Your task to perform on an android device: turn on notifications settings in the gmail app Image 0: 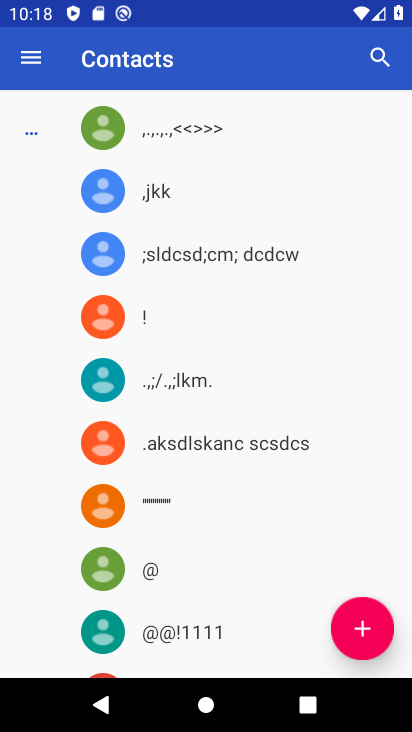
Step 0: press home button
Your task to perform on an android device: turn on notifications settings in the gmail app Image 1: 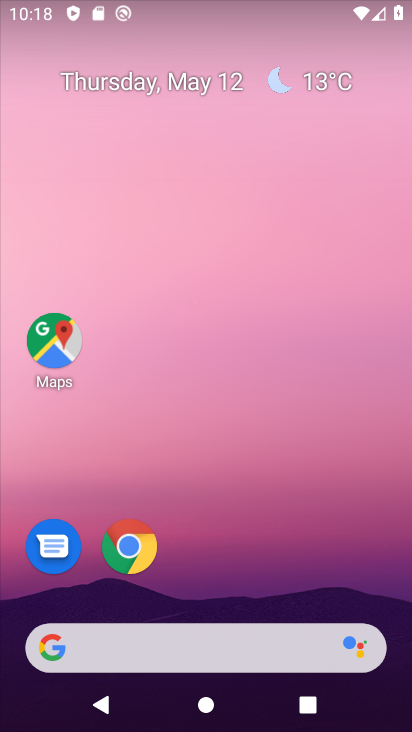
Step 1: drag from (285, 668) to (210, 233)
Your task to perform on an android device: turn on notifications settings in the gmail app Image 2: 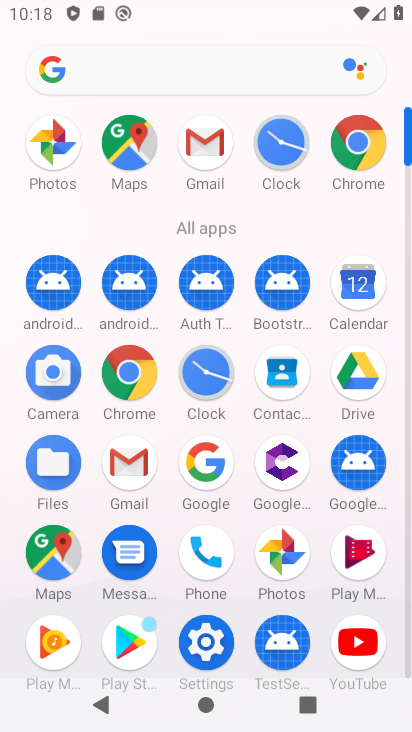
Step 2: click (204, 159)
Your task to perform on an android device: turn on notifications settings in the gmail app Image 3: 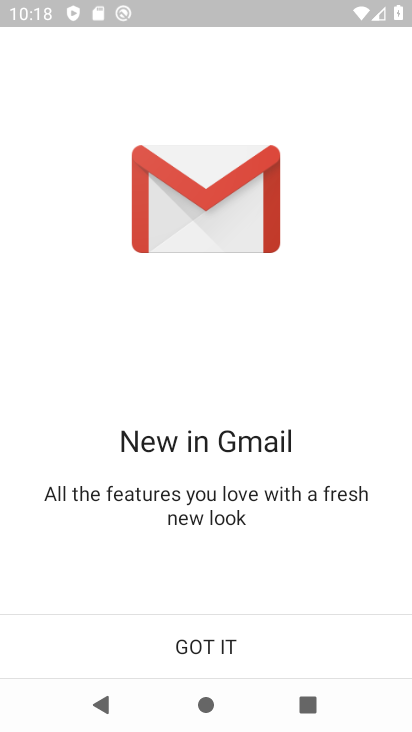
Step 3: click (154, 651)
Your task to perform on an android device: turn on notifications settings in the gmail app Image 4: 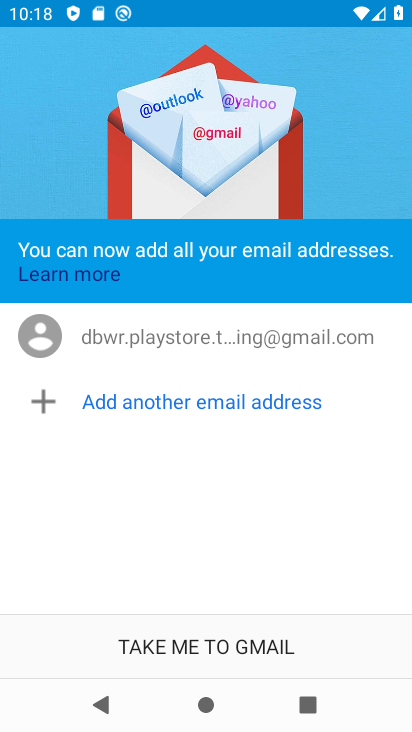
Step 4: click (154, 652)
Your task to perform on an android device: turn on notifications settings in the gmail app Image 5: 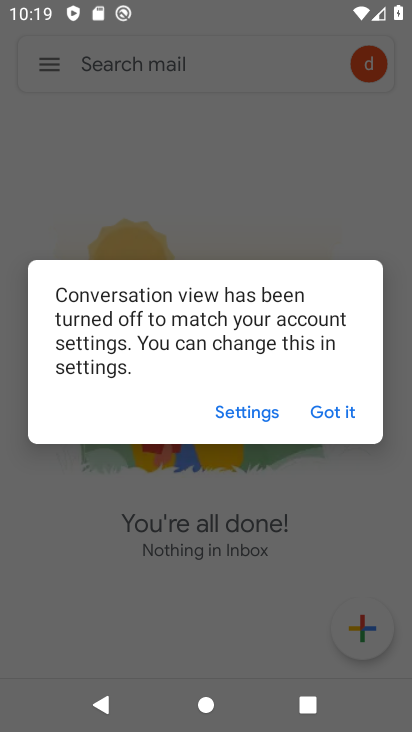
Step 5: click (328, 408)
Your task to perform on an android device: turn on notifications settings in the gmail app Image 6: 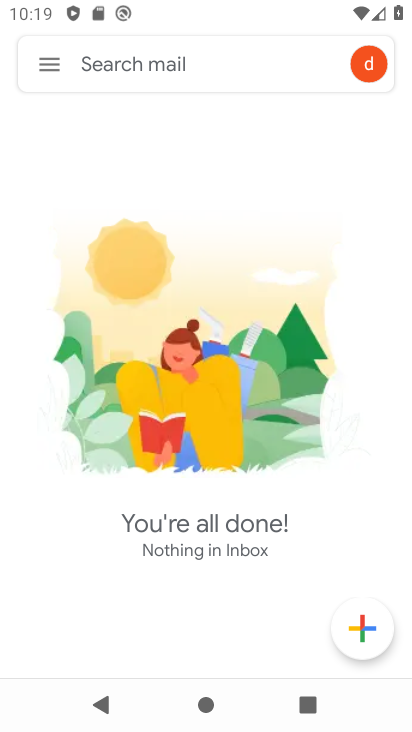
Step 6: click (34, 78)
Your task to perform on an android device: turn on notifications settings in the gmail app Image 7: 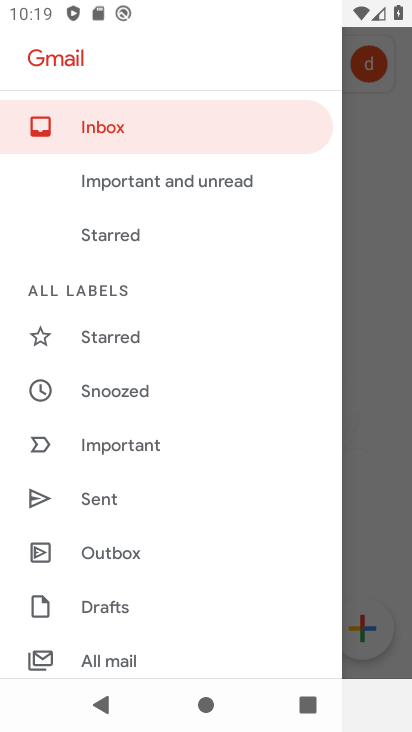
Step 7: drag from (62, 626) to (163, 463)
Your task to perform on an android device: turn on notifications settings in the gmail app Image 8: 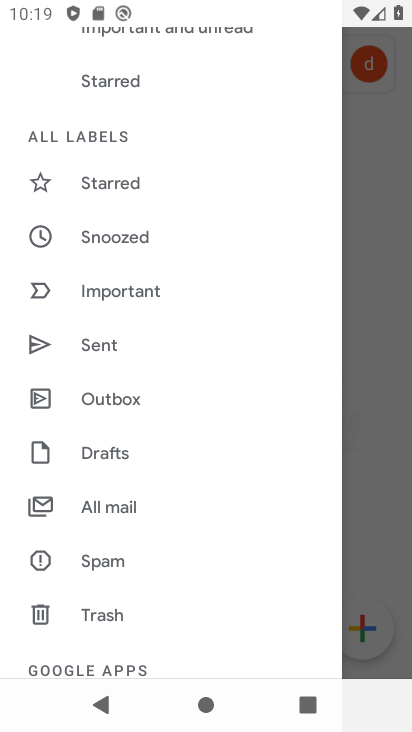
Step 8: drag from (130, 591) to (219, 453)
Your task to perform on an android device: turn on notifications settings in the gmail app Image 9: 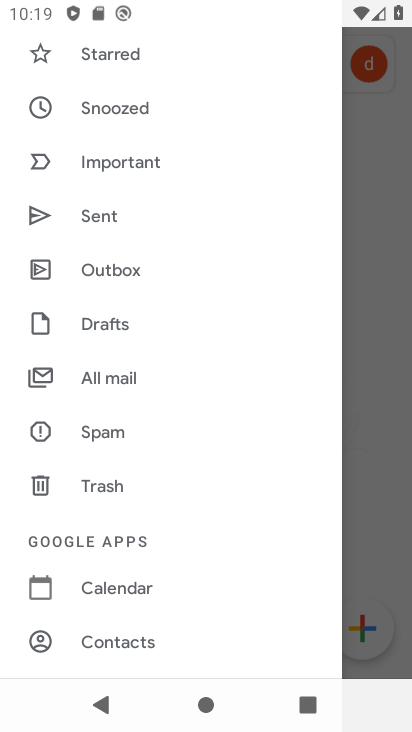
Step 9: drag from (140, 573) to (261, 377)
Your task to perform on an android device: turn on notifications settings in the gmail app Image 10: 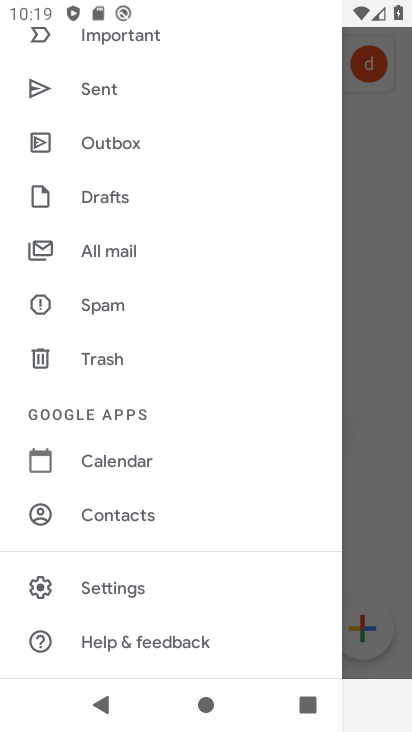
Step 10: click (143, 589)
Your task to perform on an android device: turn on notifications settings in the gmail app Image 11: 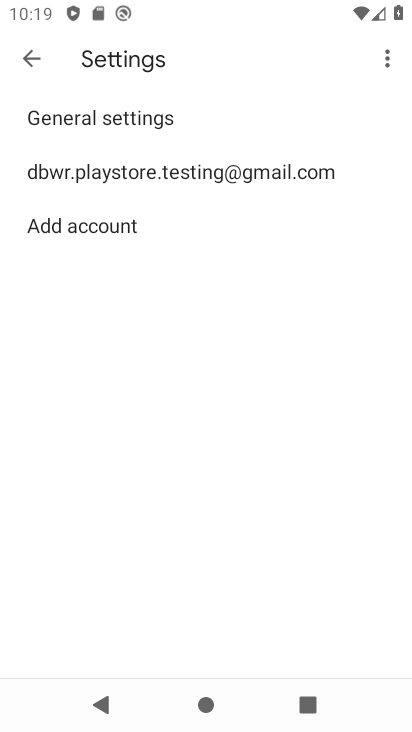
Step 11: click (131, 187)
Your task to perform on an android device: turn on notifications settings in the gmail app Image 12: 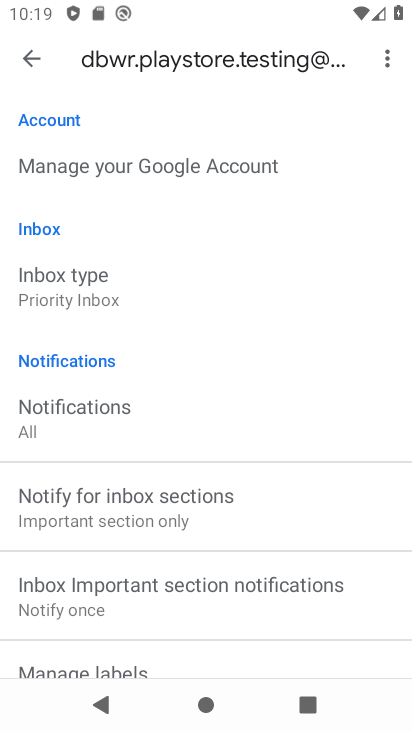
Step 12: click (74, 410)
Your task to perform on an android device: turn on notifications settings in the gmail app Image 13: 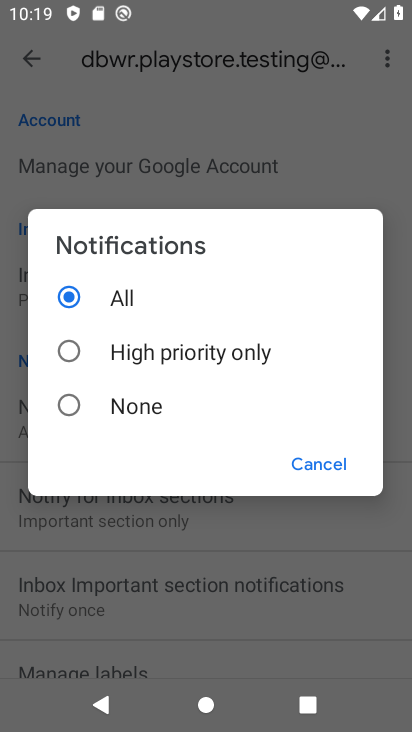
Step 13: task complete